Your task to perform on an android device: open sync settings in chrome Image 0: 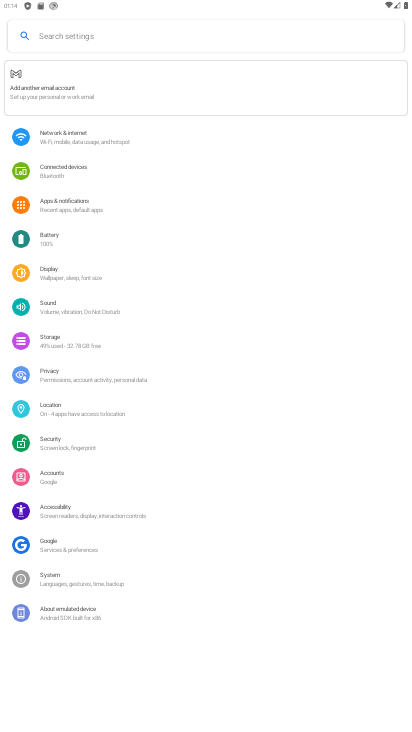
Step 0: press home button
Your task to perform on an android device: open sync settings in chrome Image 1: 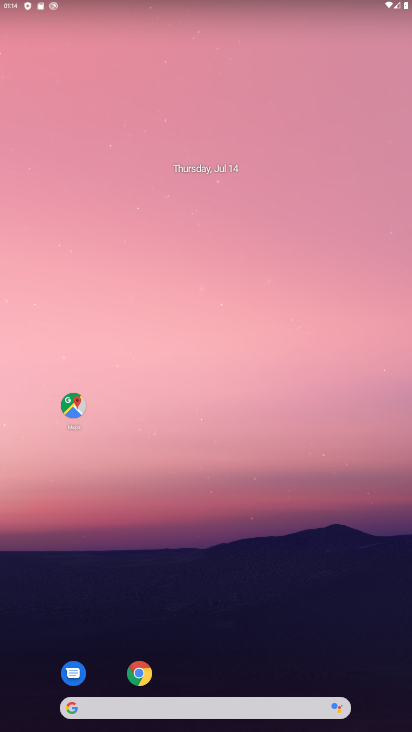
Step 1: click (125, 668)
Your task to perform on an android device: open sync settings in chrome Image 2: 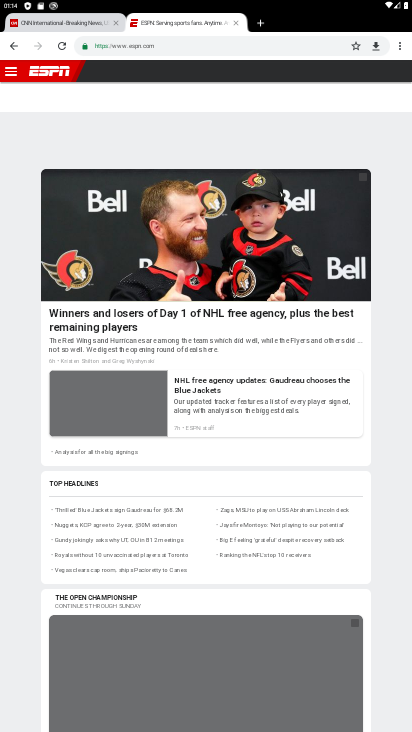
Step 2: click (404, 44)
Your task to perform on an android device: open sync settings in chrome Image 3: 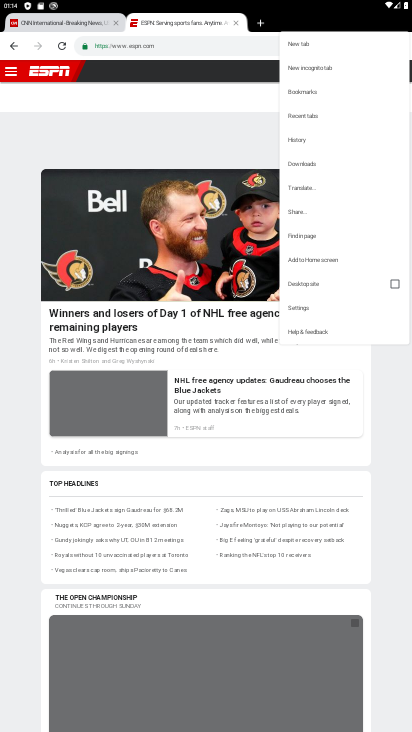
Step 3: click (311, 301)
Your task to perform on an android device: open sync settings in chrome Image 4: 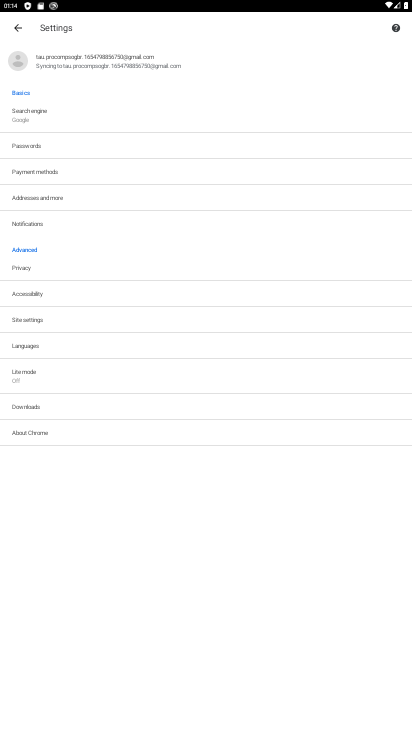
Step 4: click (105, 68)
Your task to perform on an android device: open sync settings in chrome Image 5: 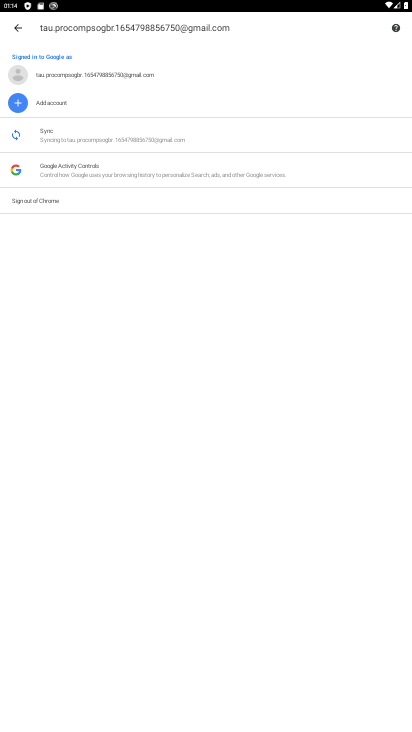
Step 5: task complete